Your task to perform on an android device: check android version Image 0: 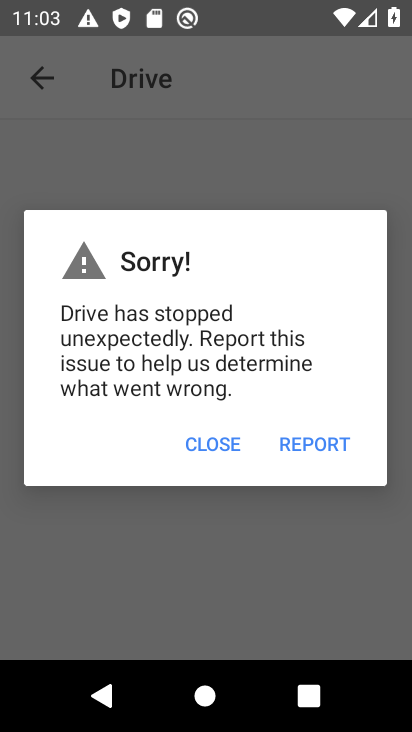
Step 0: press home button
Your task to perform on an android device: check android version Image 1: 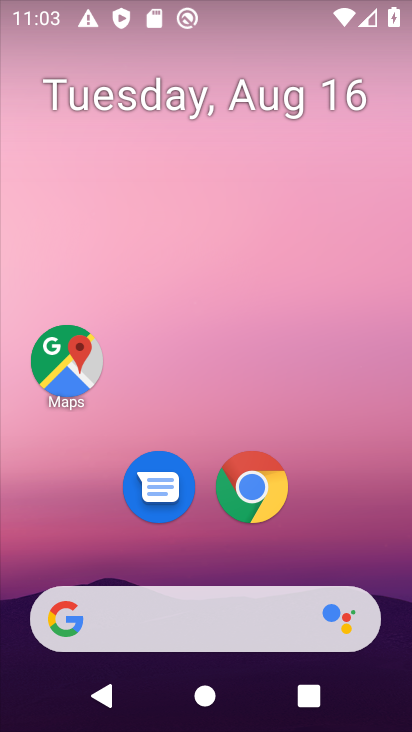
Step 1: drag from (337, 527) to (274, 80)
Your task to perform on an android device: check android version Image 2: 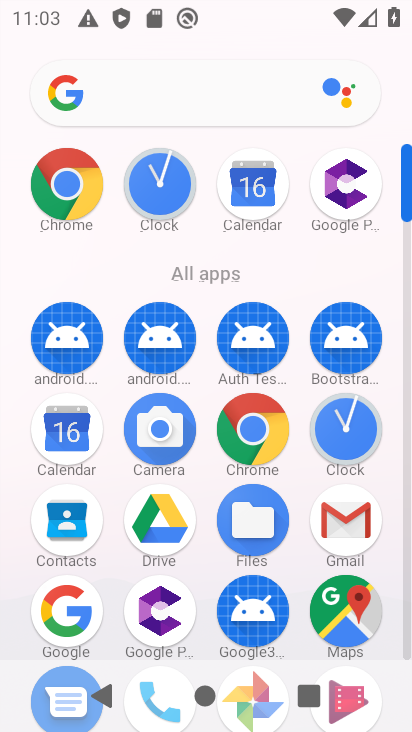
Step 2: drag from (226, 279) to (227, 58)
Your task to perform on an android device: check android version Image 3: 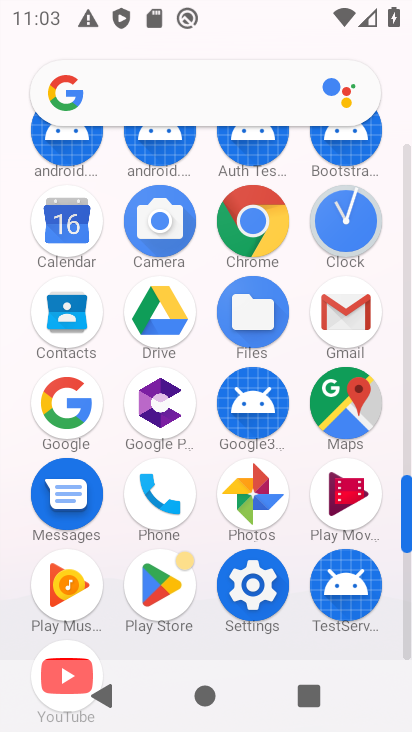
Step 3: click (257, 591)
Your task to perform on an android device: check android version Image 4: 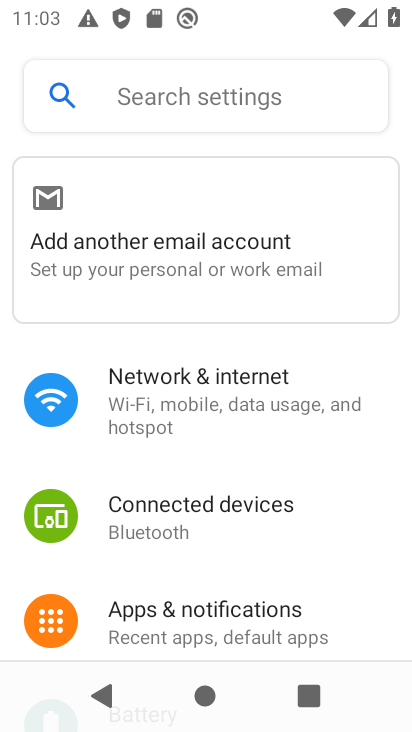
Step 4: drag from (305, 596) to (297, 47)
Your task to perform on an android device: check android version Image 5: 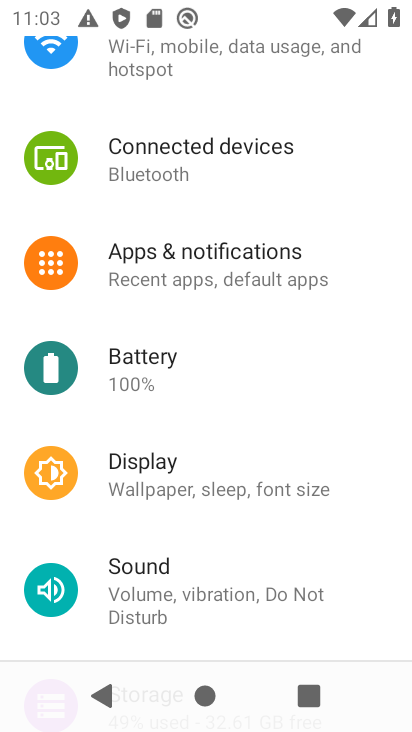
Step 5: drag from (327, 561) to (325, 233)
Your task to perform on an android device: check android version Image 6: 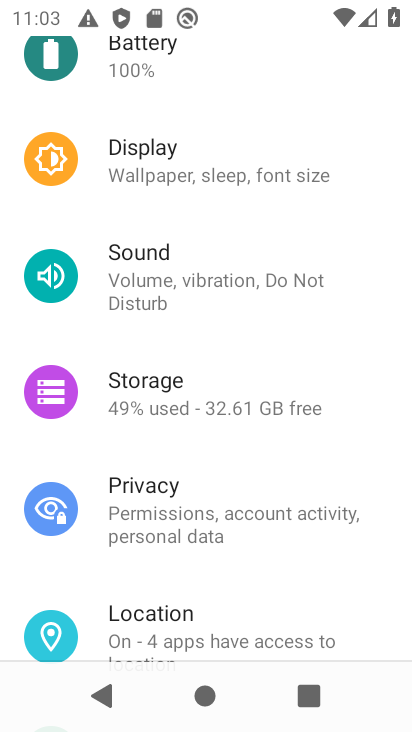
Step 6: drag from (332, 563) to (286, 94)
Your task to perform on an android device: check android version Image 7: 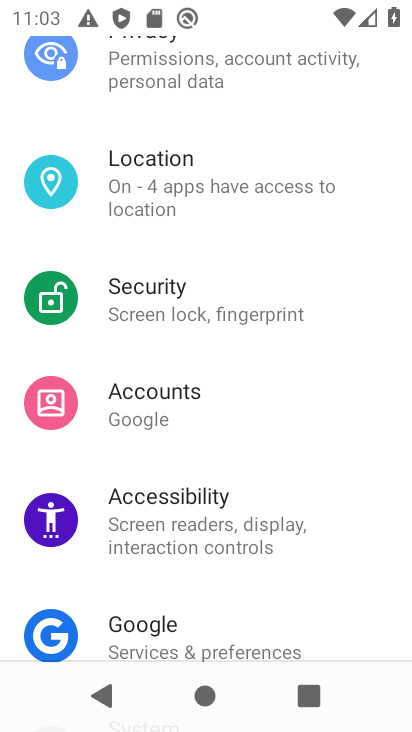
Step 7: drag from (302, 596) to (241, 104)
Your task to perform on an android device: check android version Image 8: 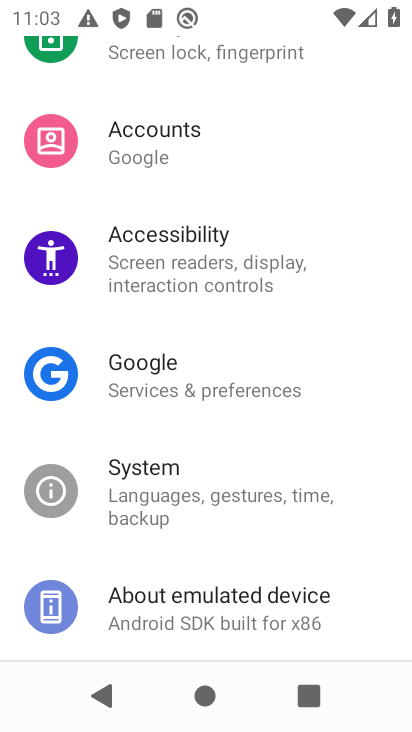
Step 8: click (230, 634)
Your task to perform on an android device: check android version Image 9: 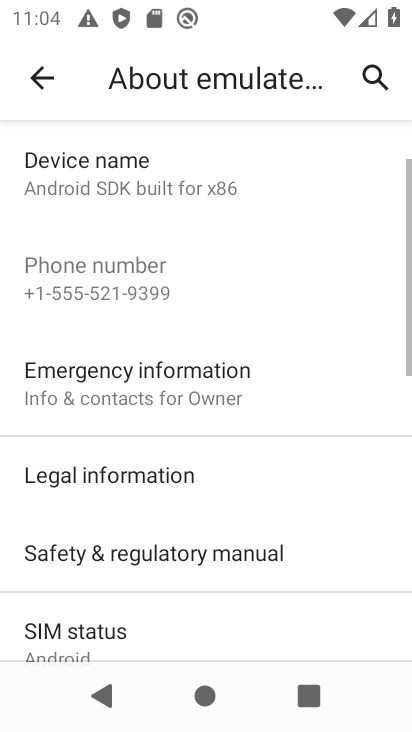
Step 9: drag from (251, 529) to (186, 130)
Your task to perform on an android device: check android version Image 10: 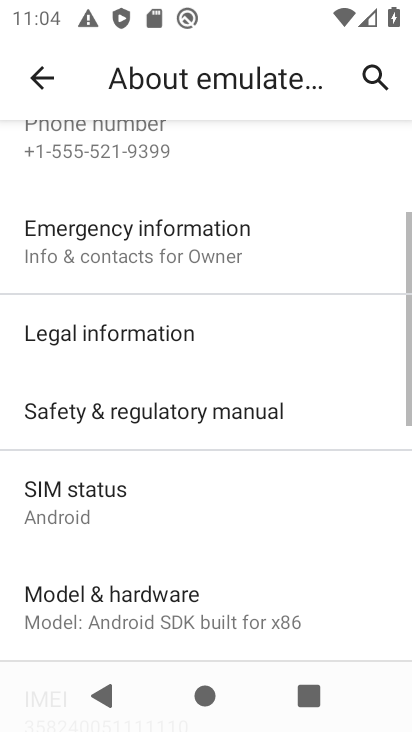
Step 10: drag from (299, 506) to (243, 273)
Your task to perform on an android device: check android version Image 11: 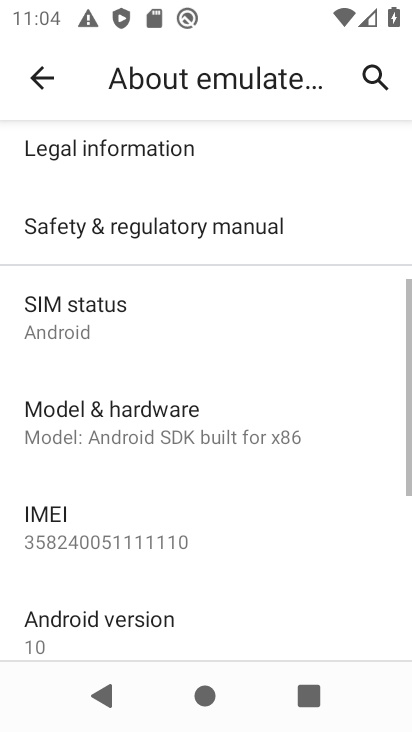
Step 11: click (125, 644)
Your task to perform on an android device: check android version Image 12: 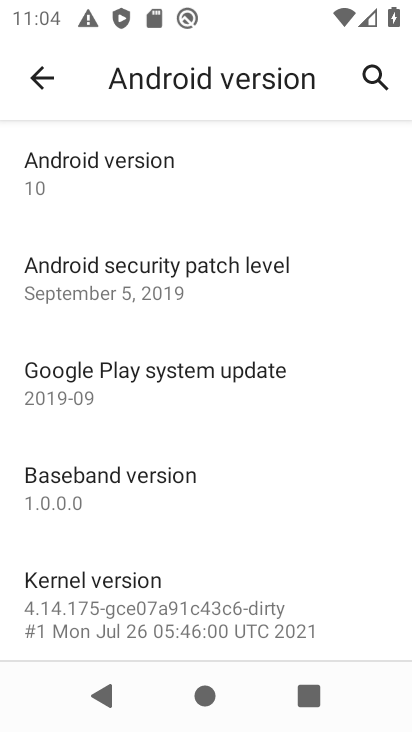
Step 12: task complete